Your task to perform on an android device: Open accessibility settings Image 0: 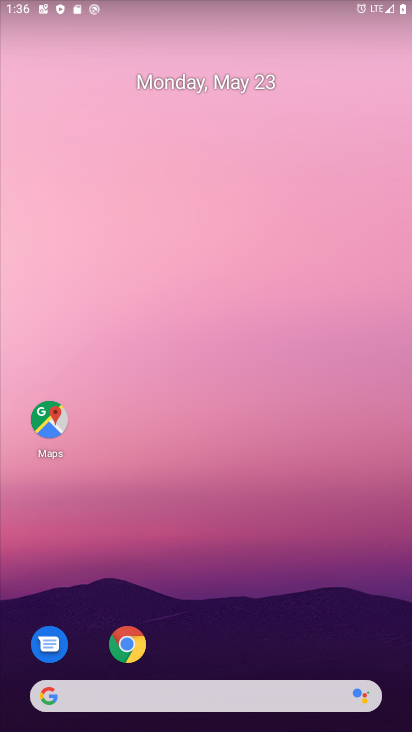
Step 0: drag from (358, 621) to (231, 89)
Your task to perform on an android device: Open accessibility settings Image 1: 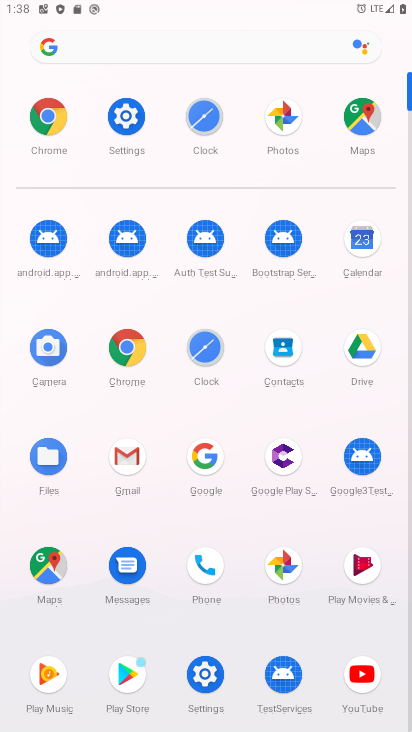
Step 1: click (207, 680)
Your task to perform on an android device: Open accessibility settings Image 2: 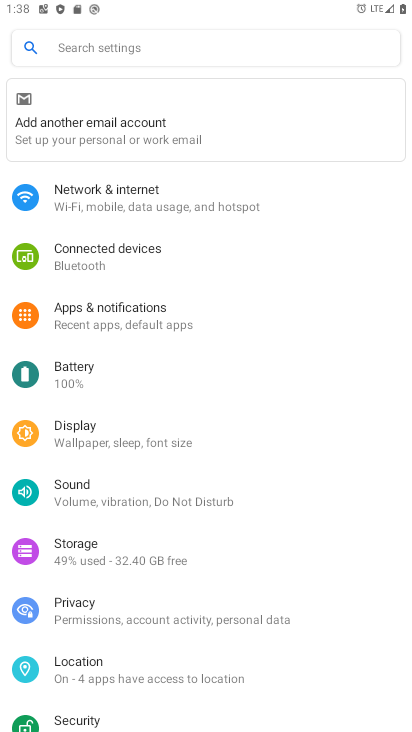
Step 2: drag from (131, 653) to (174, 228)
Your task to perform on an android device: Open accessibility settings Image 3: 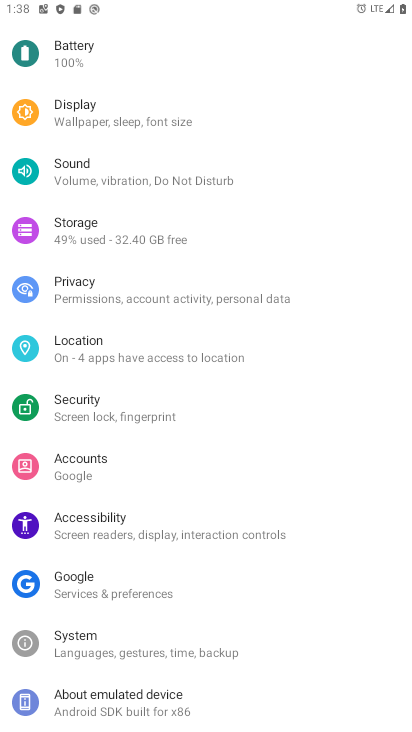
Step 3: click (114, 521)
Your task to perform on an android device: Open accessibility settings Image 4: 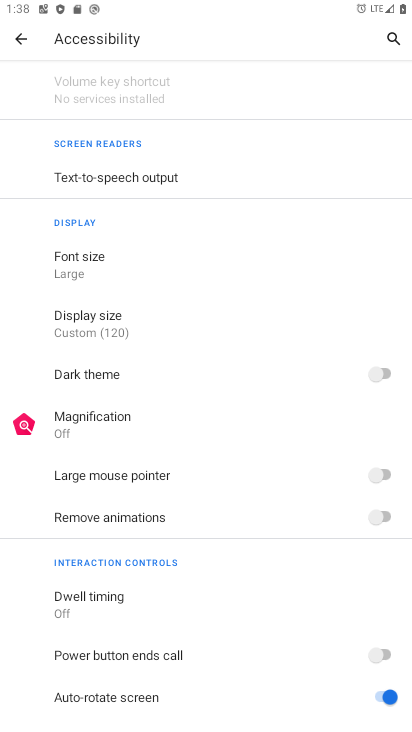
Step 4: task complete